Your task to perform on an android device: star an email in the gmail app Image 0: 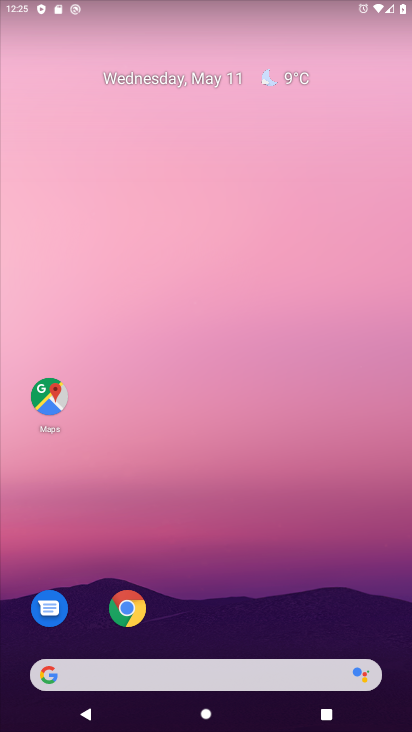
Step 0: drag from (219, 556) to (216, 134)
Your task to perform on an android device: star an email in the gmail app Image 1: 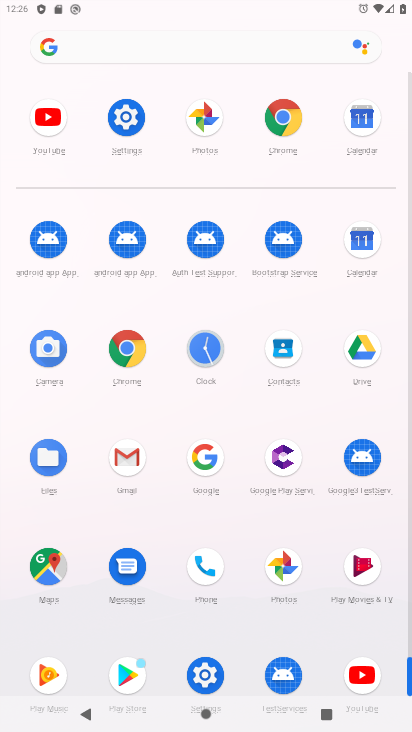
Step 1: click (135, 484)
Your task to perform on an android device: star an email in the gmail app Image 2: 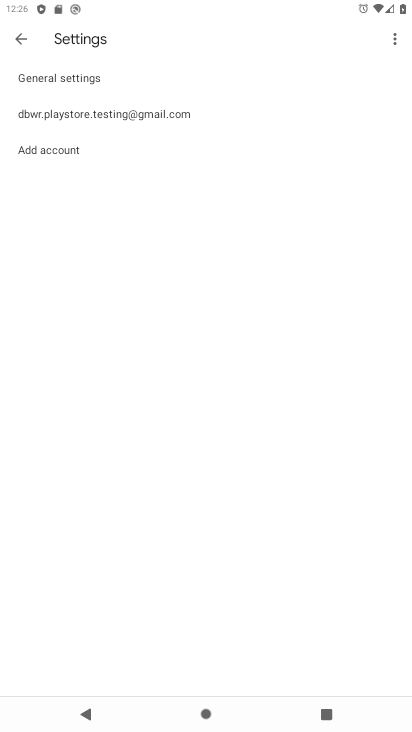
Step 2: click (20, 43)
Your task to perform on an android device: star an email in the gmail app Image 3: 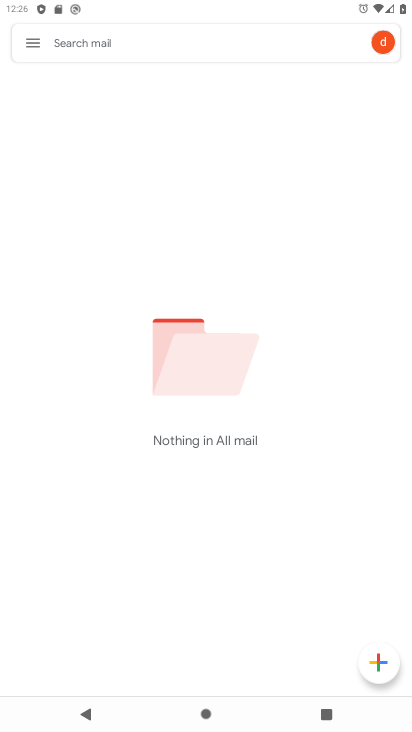
Step 3: task complete